Your task to perform on an android device: Go to settings Image 0: 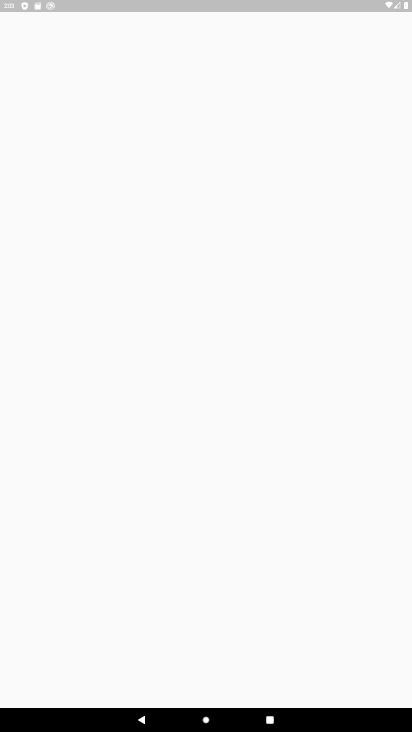
Step 0: press home button
Your task to perform on an android device: Go to settings Image 1: 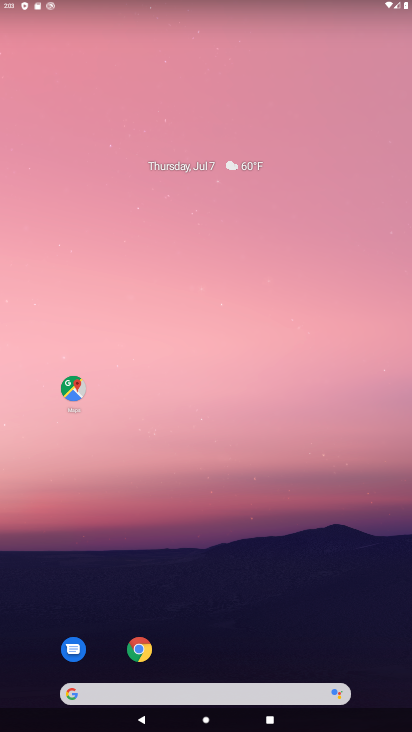
Step 1: drag from (189, 701) to (303, 71)
Your task to perform on an android device: Go to settings Image 2: 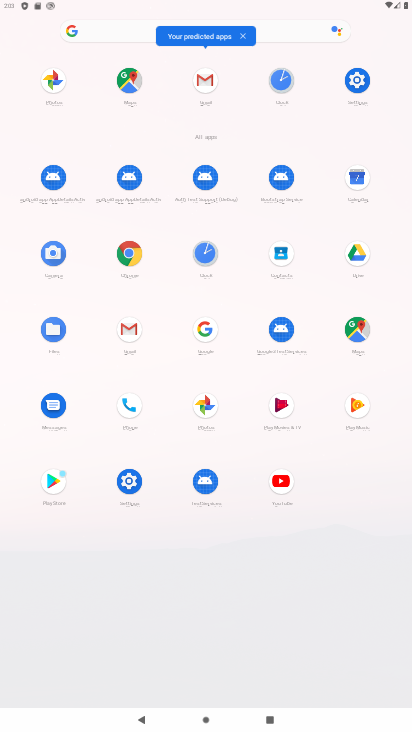
Step 2: click (132, 490)
Your task to perform on an android device: Go to settings Image 3: 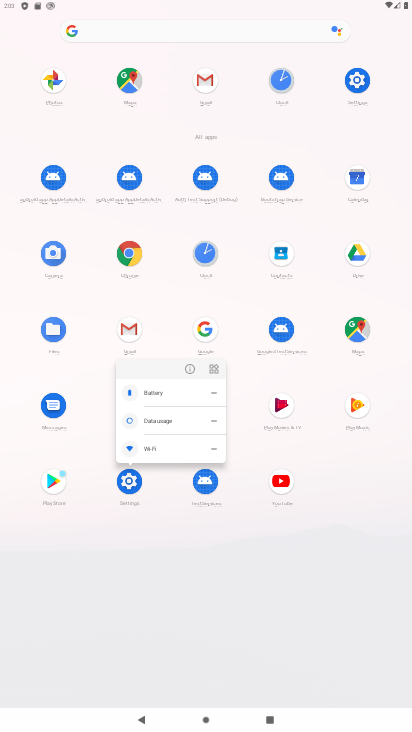
Step 3: click (132, 489)
Your task to perform on an android device: Go to settings Image 4: 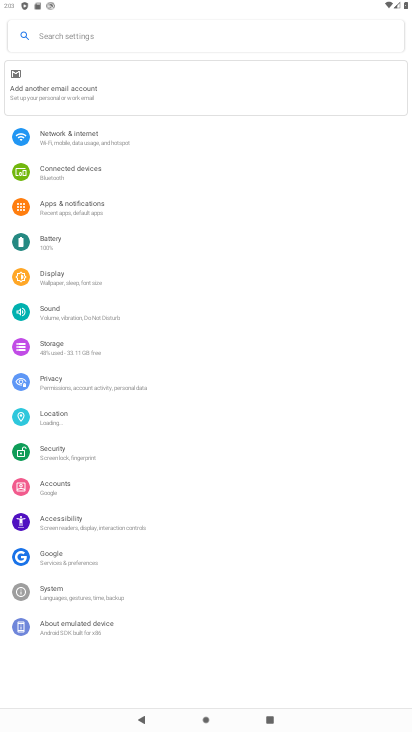
Step 4: task complete